Your task to perform on an android device: Go to ESPN.com Image 0: 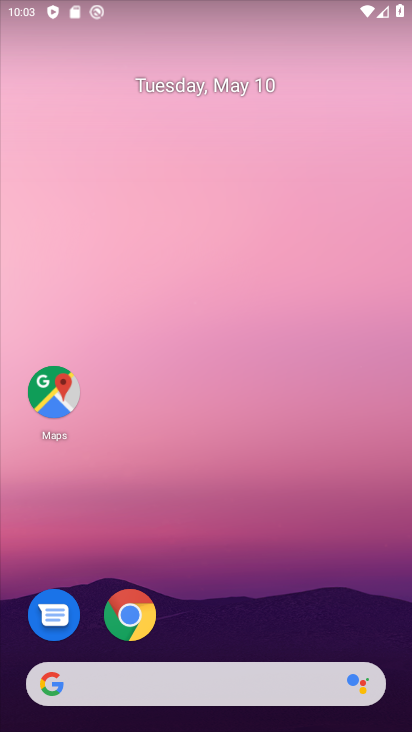
Step 0: click (130, 612)
Your task to perform on an android device: Go to ESPN.com Image 1: 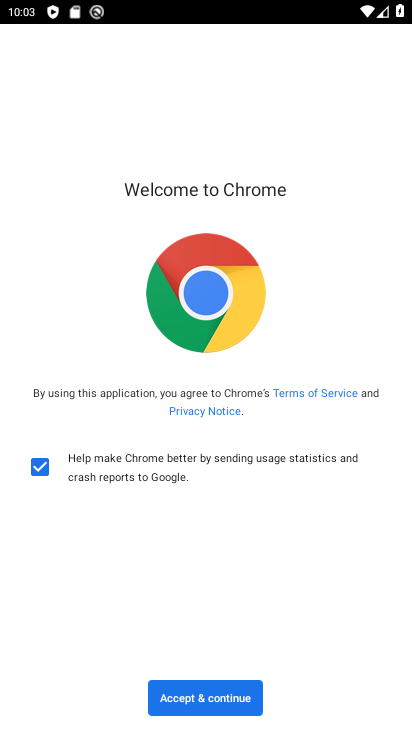
Step 1: click (197, 694)
Your task to perform on an android device: Go to ESPN.com Image 2: 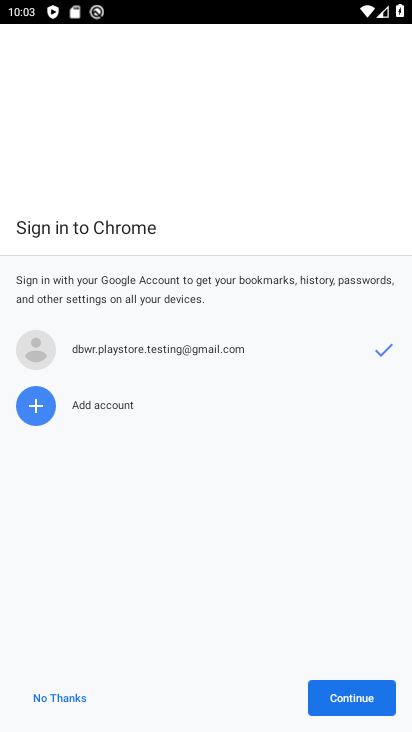
Step 2: click (342, 698)
Your task to perform on an android device: Go to ESPN.com Image 3: 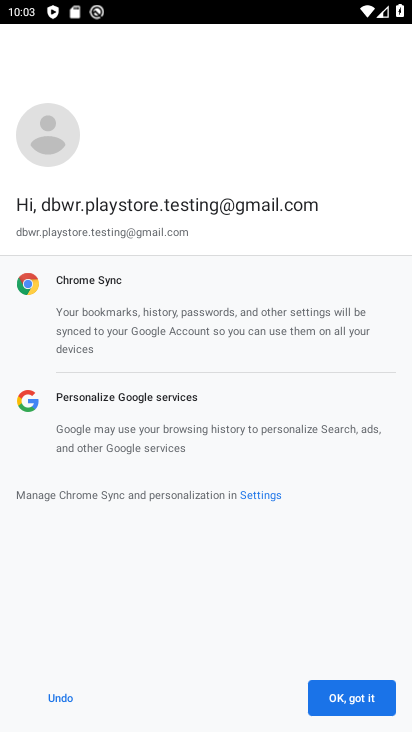
Step 3: click (342, 698)
Your task to perform on an android device: Go to ESPN.com Image 4: 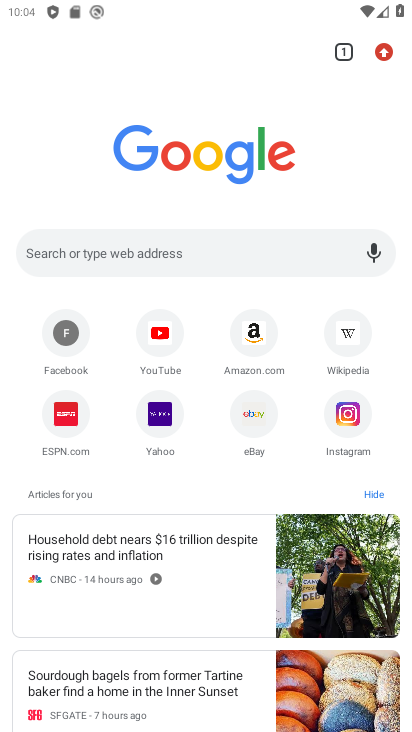
Step 4: click (198, 260)
Your task to perform on an android device: Go to ESPN.com Image 5: 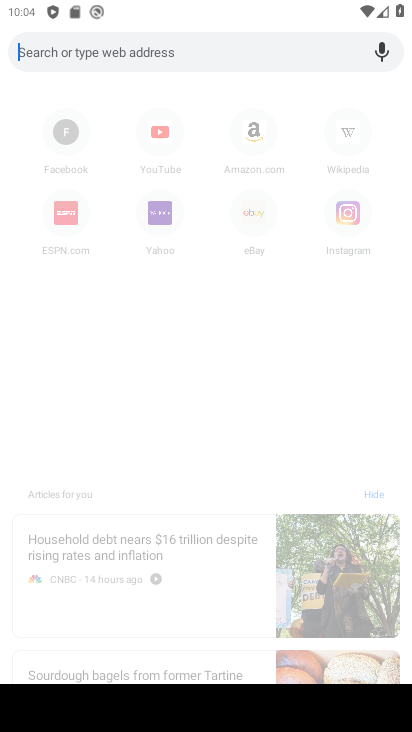
Step 5: type "ESPN.com"
Your task to perform on an android device: Go to ESPN.com Image 6: 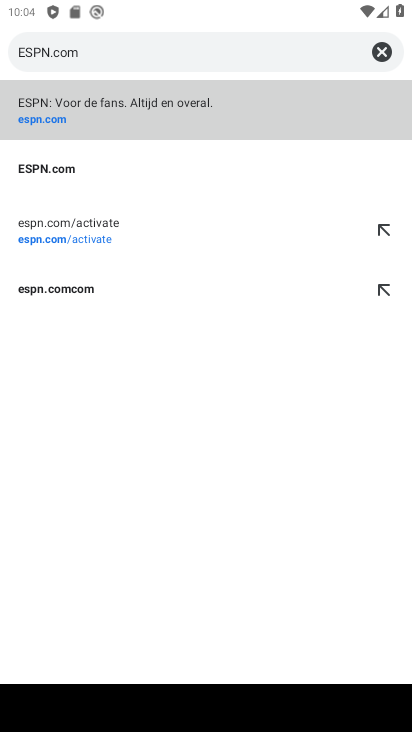
Step 6: click (63, 166)
Your task to perform on an android device: Go to ESPN.com Image 7: 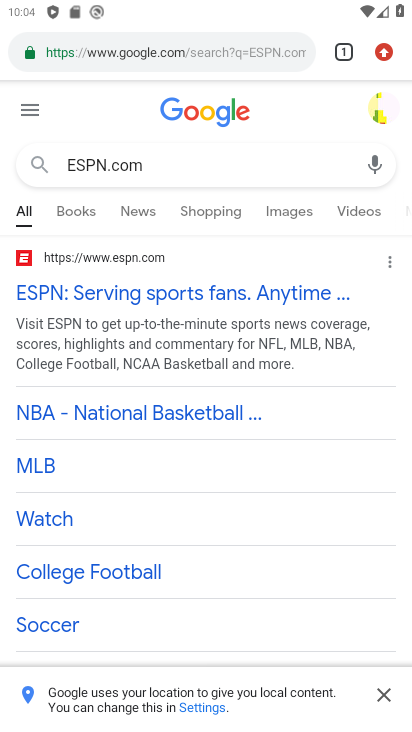
Step 7: click (130, 292)
Your task to perform on an android device: Go to ESPN.com Image 8: 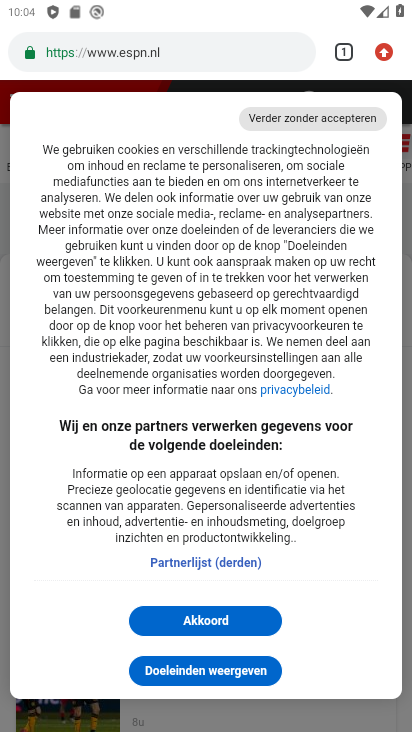
Step 8: task complete